Your task to perform on an android device: delete a single message in the gmail app Image 0: 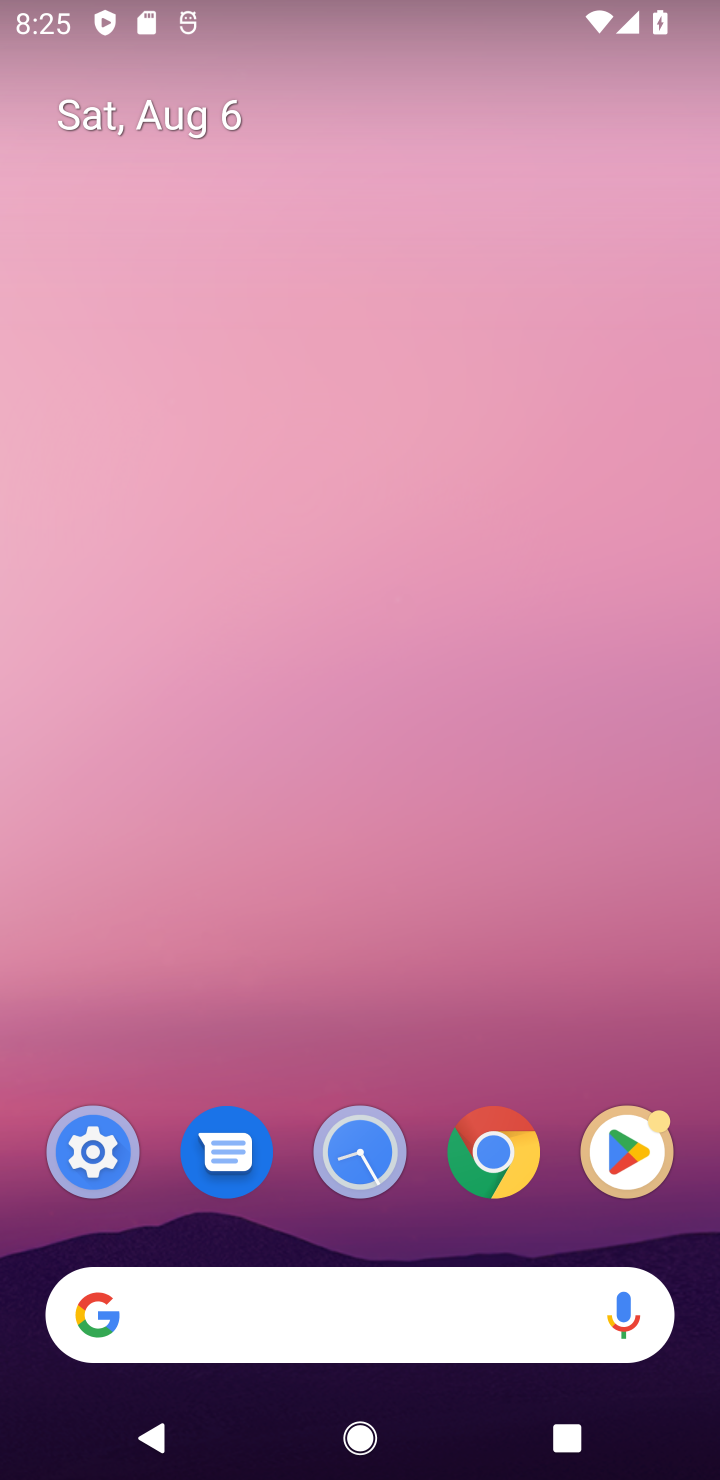
Step 0: press home button
Your task to perform on an android device: delete a single message in the gmail app Image 1: 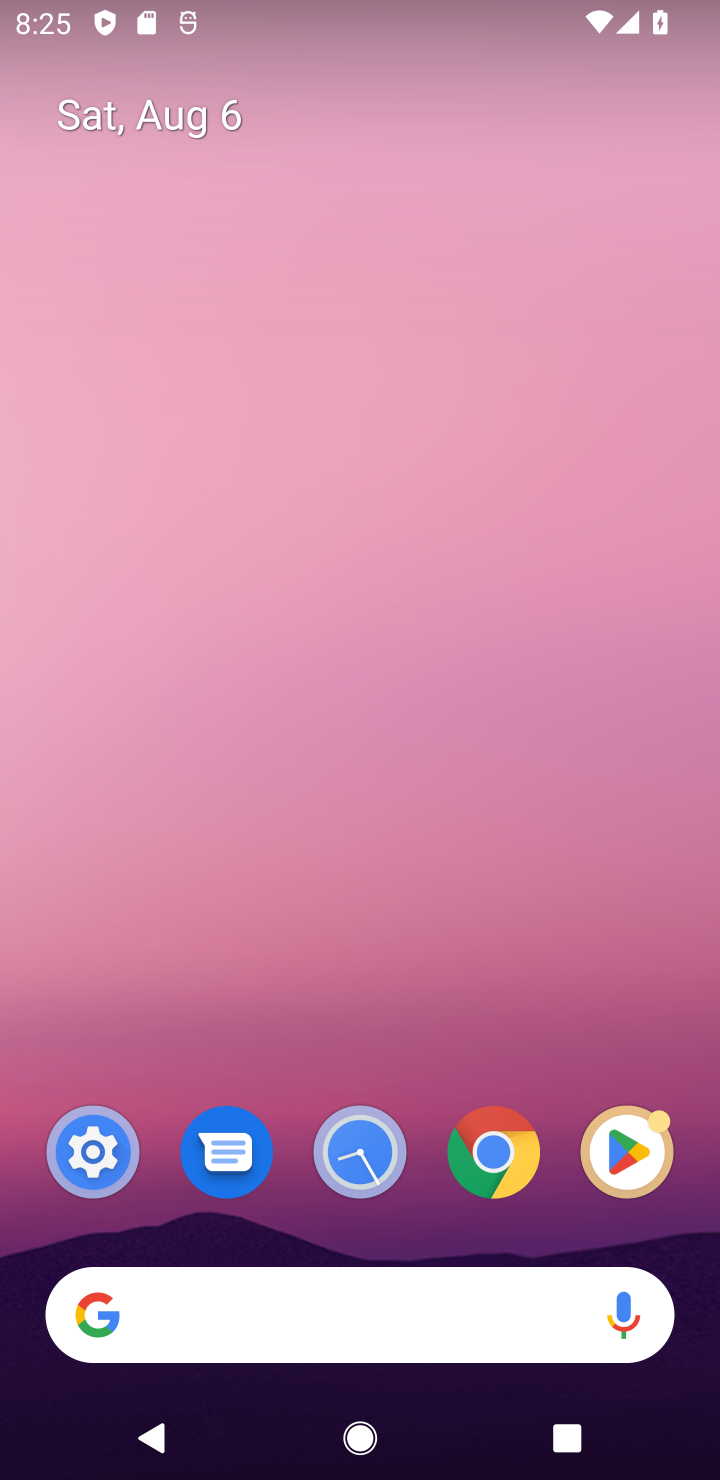
Step 1: drag from (475, 1057) to (395, 120)
Your task to perform on an android device: delete a single message in the gmail app Image 2: 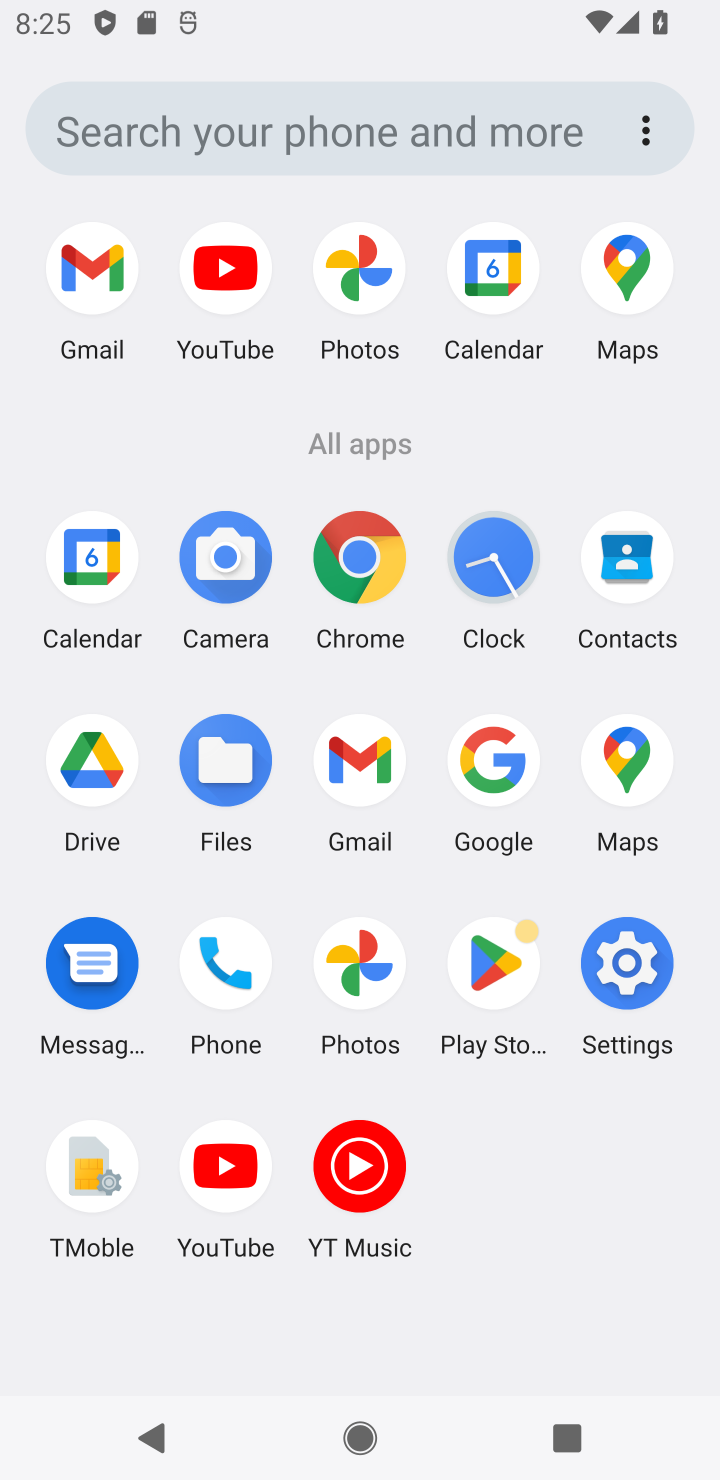
Step 2: click (93, 263)
Your task to perform on an android device: delete a single message in the gmail app Image 3: 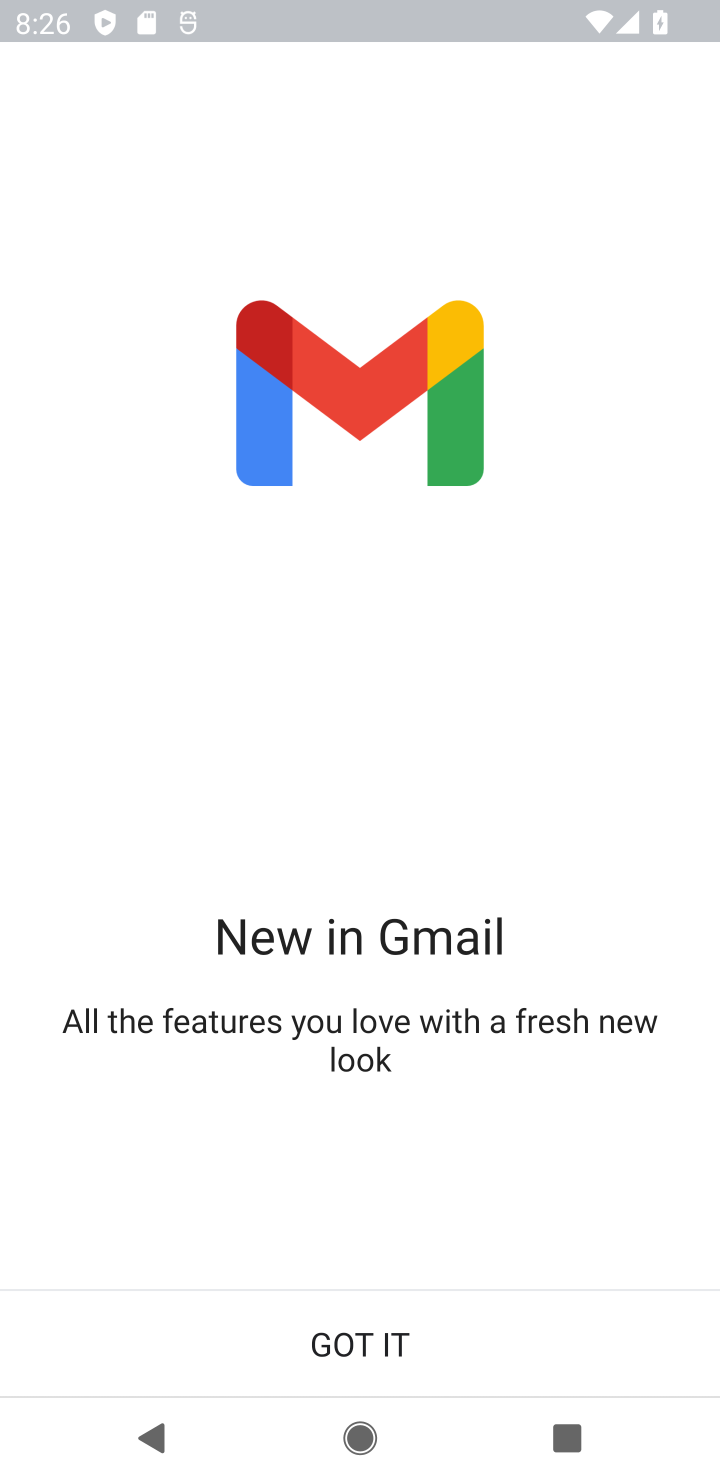
Step 3: click (421, 1319)
Your task to perform on an android device: delete a single message in the gmail app Image 4: 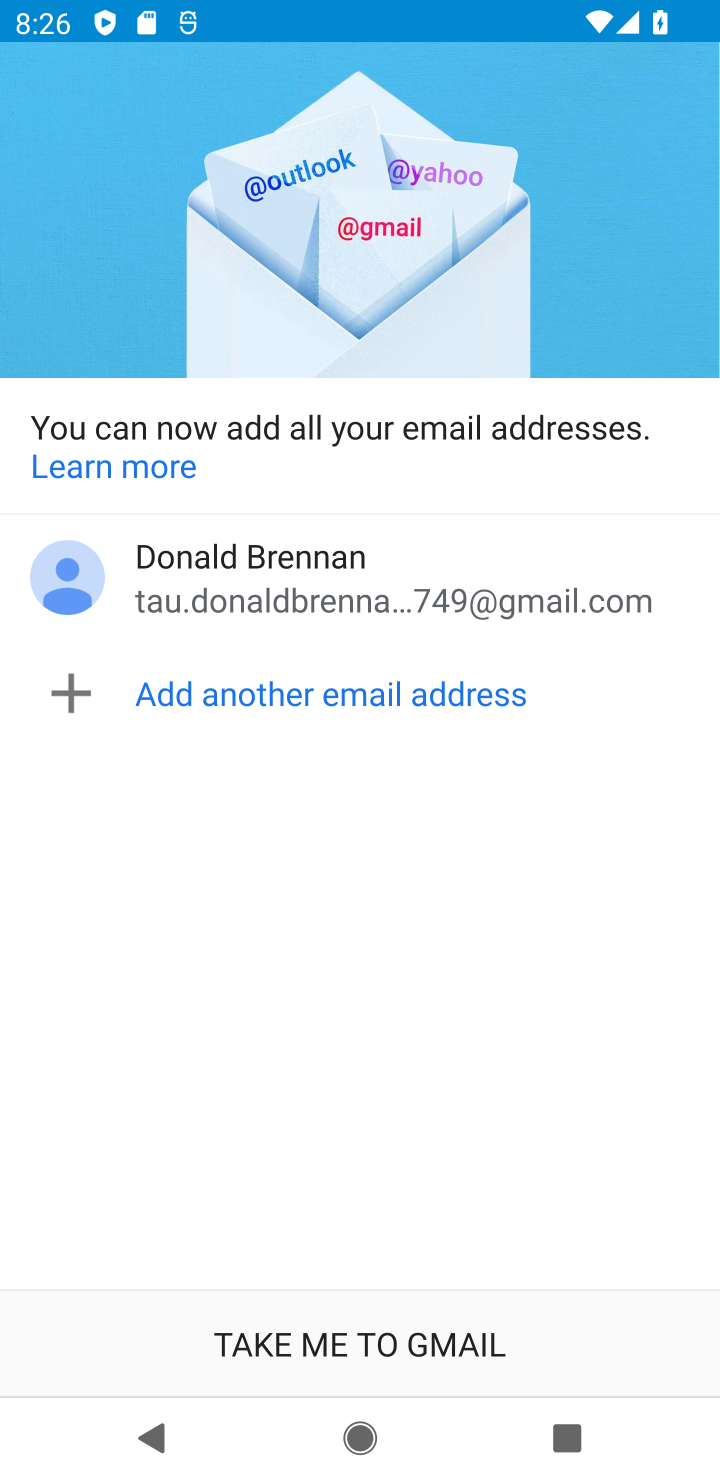
Step 4: click (494, 1328)
Your task to perform on an android device: delete a single message in the gmail app Image 5: 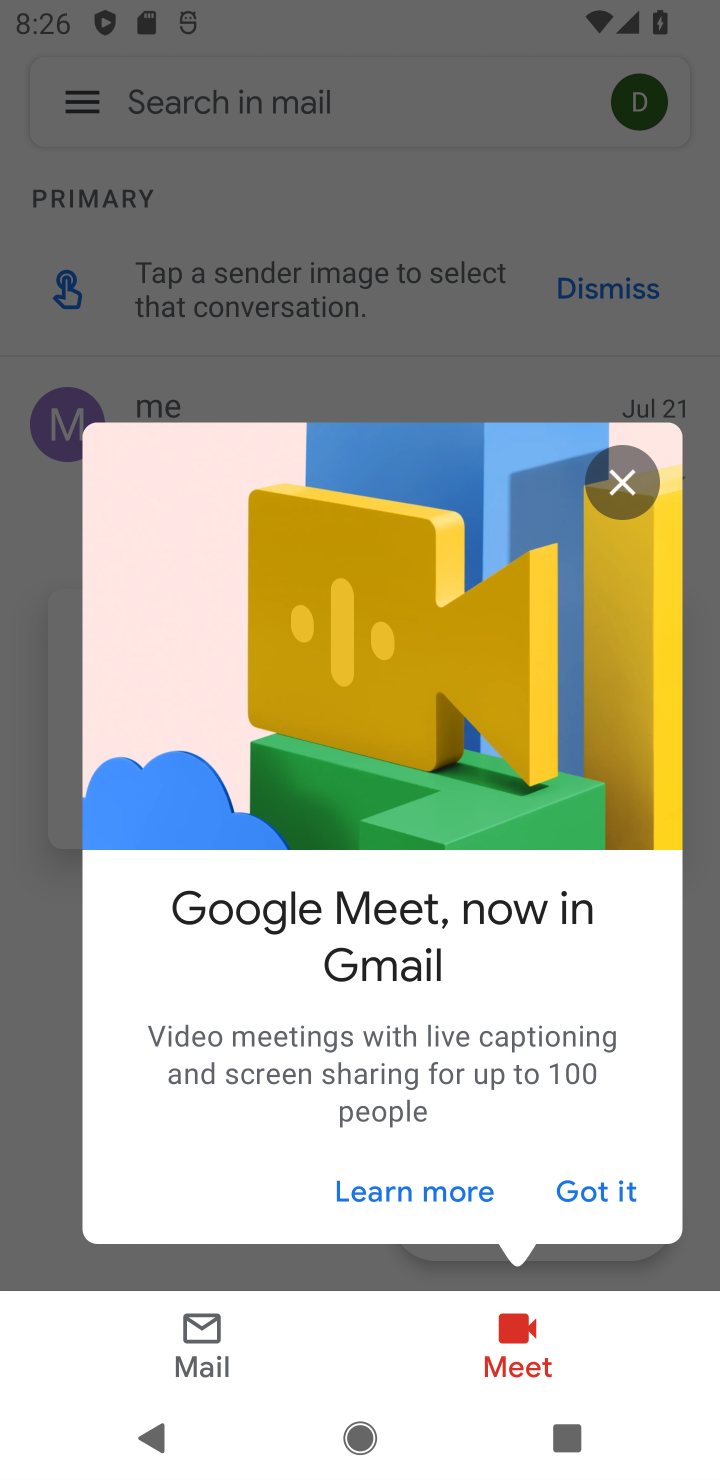
Step 5: click (624, 495)
Your task to perform on an android device: delete a single message in the gmail app Image 6: 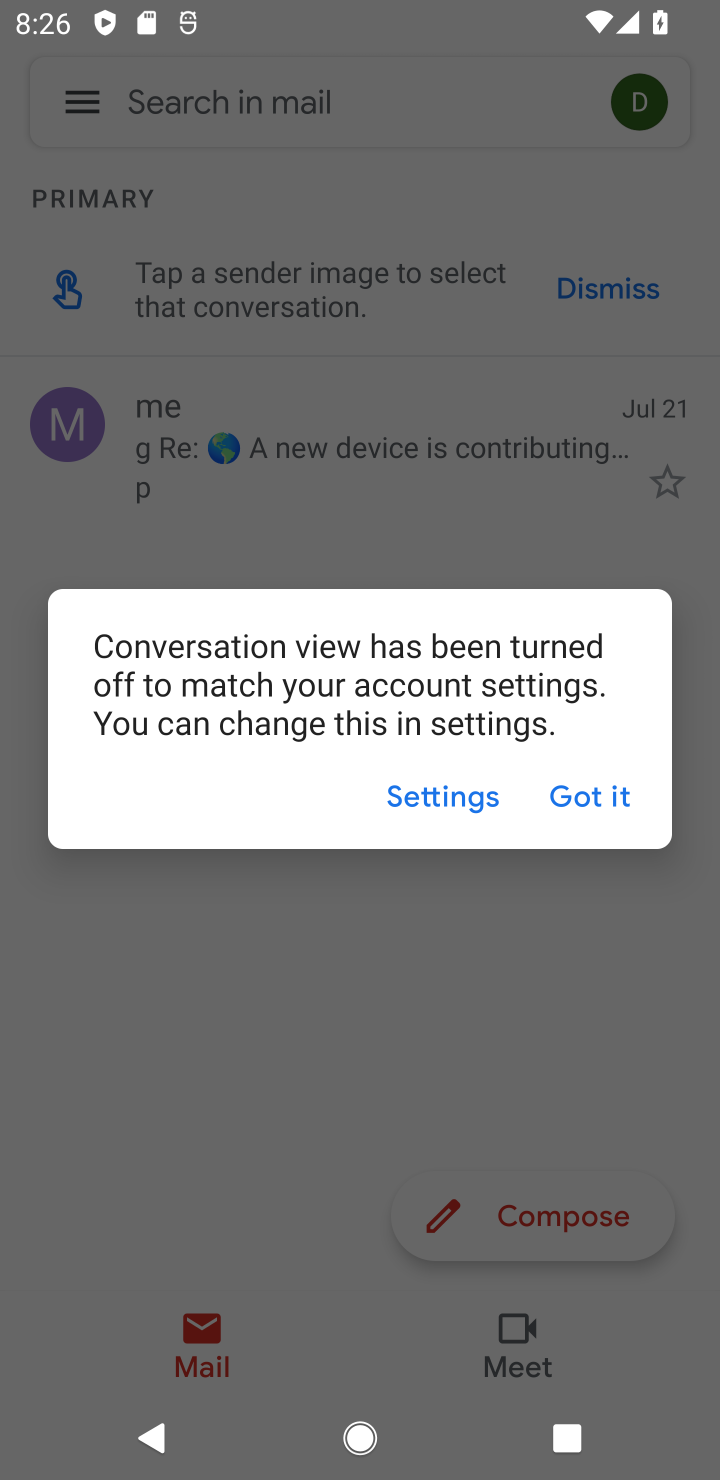
Step 6: click (621, 803)
Your task to perform on an android device: delete a single message in the gmail app Image 7: 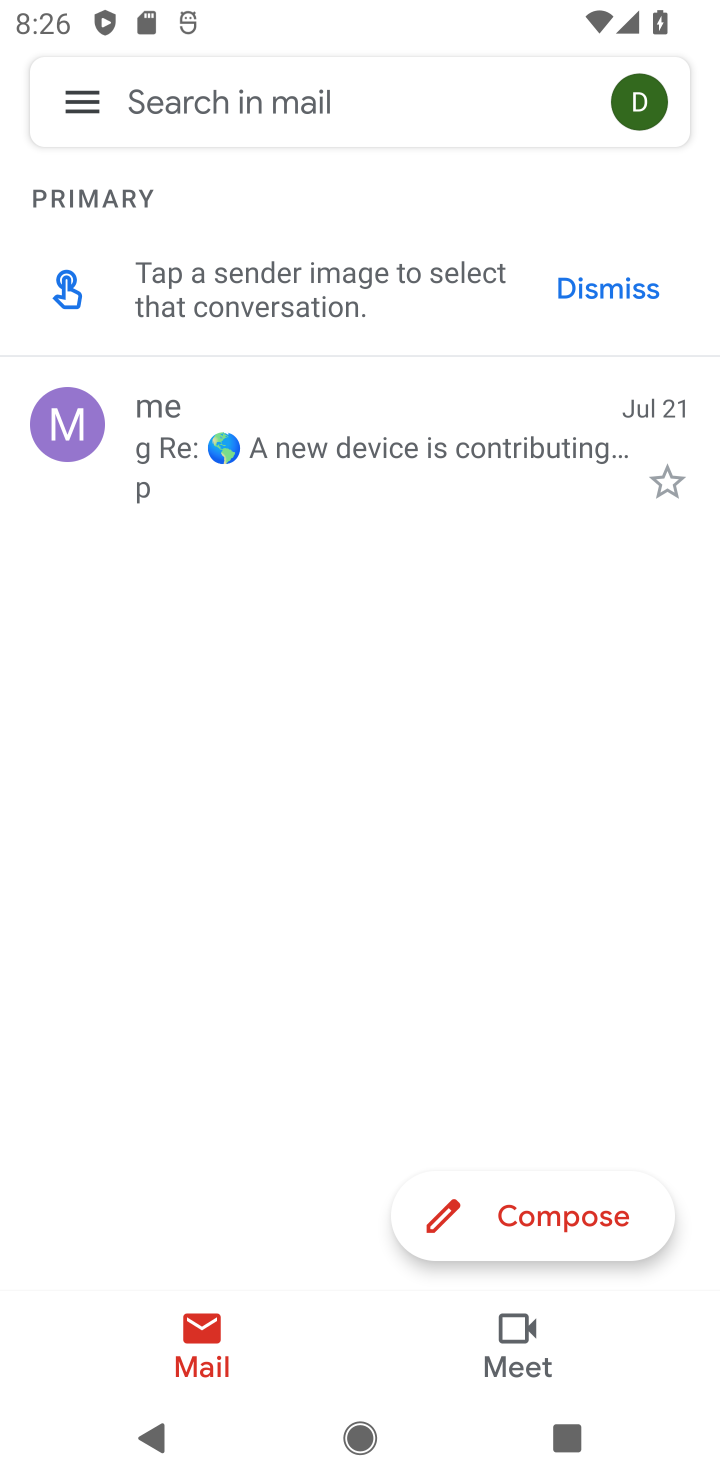
Step 7: click (82, 437)
Your task to perform on an android device: delete a single message in the gmail app Image 8: 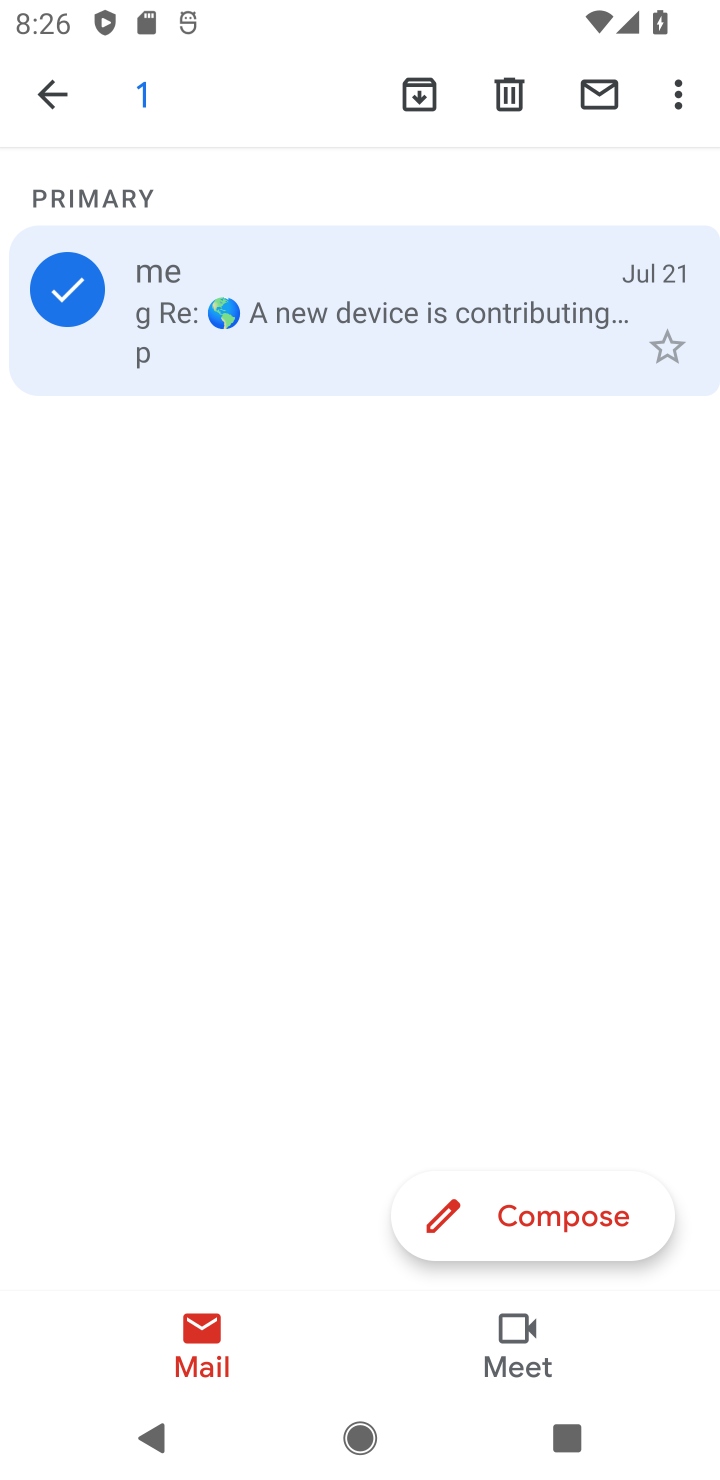
Step 8: click (504, 97)
Your task to perform on an android device: delete a single message in the gmail app Image 9: 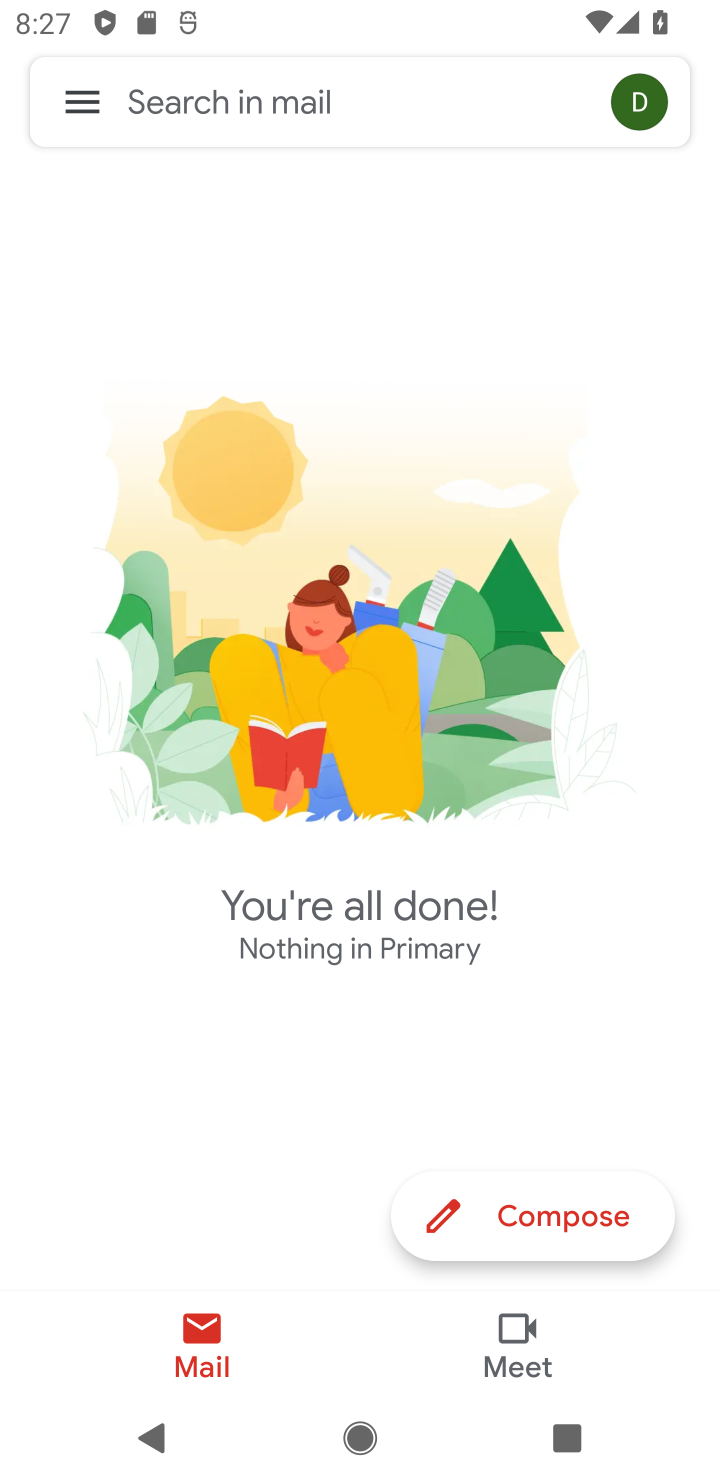
Step 9: task complete